Your task to perform on an android device: change text size in settings app Image 0: 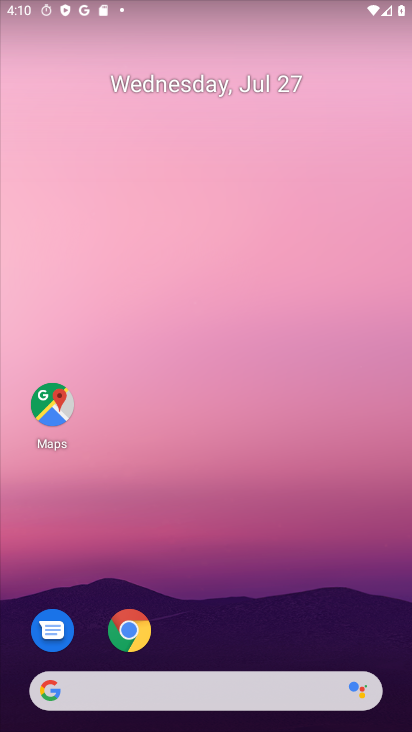
Step 0: drag from (225, 606) to (250, 7)
Your task to perform on an android device: change text size in settings app Image 1: 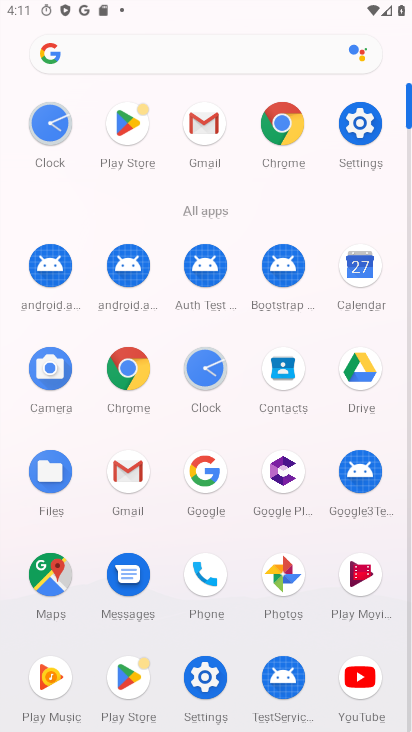
Step 1: click (367, 132)
Your task to perform on an android device: change text size in settings app Image 2: 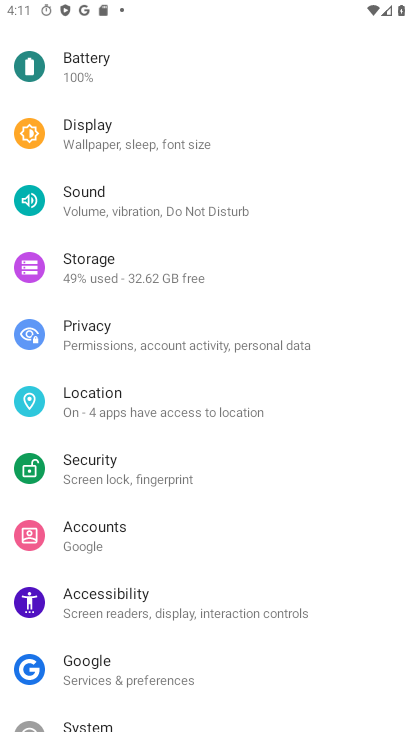
Step 2: drag from (97, 691) to (122, 496)
Your task to perform on an android device: change text size in settings app Image 3: 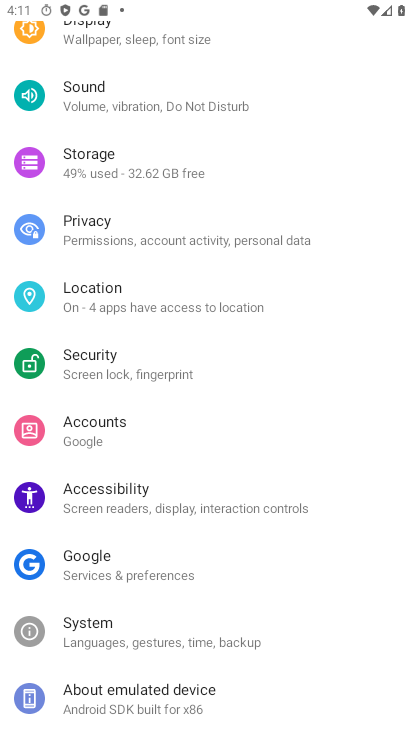
Step 3: click (82, 633)
Your task to perform on an android device: change text size in settings app Image 4: 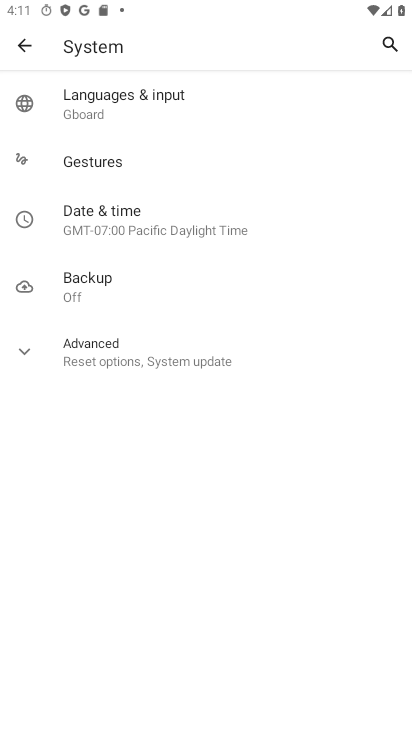
Step 4: click (135, 99)
Your task to perform on an android device: change text size in settings app Image 5: 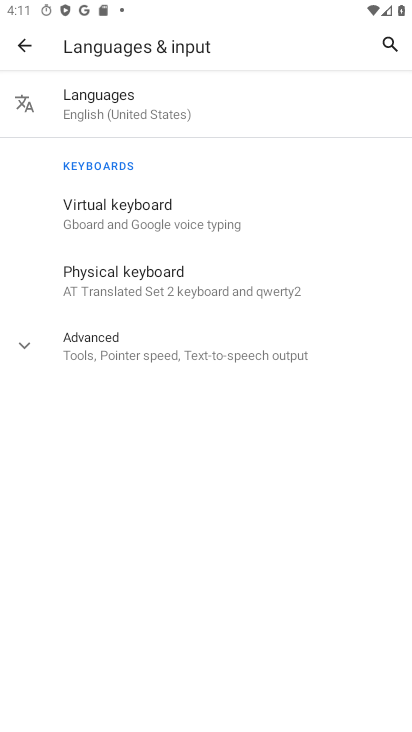
Step 5: click (31, 49)
Your task to perform on an android device: change text size in settings app Image 6: 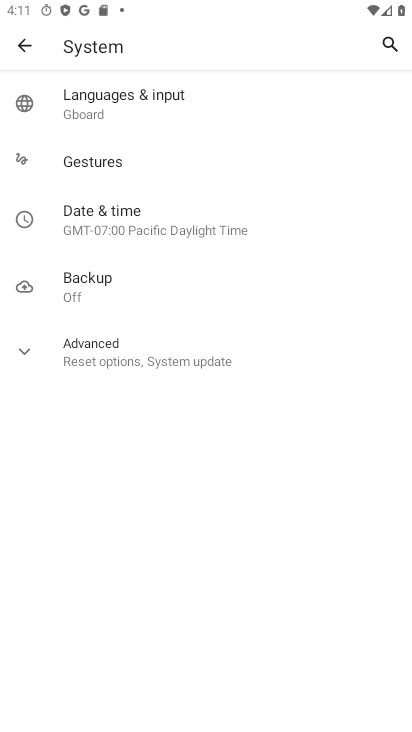
Step 6: click (32, 48)
Your task to perform on an android device: change text size in settings app Image 7: 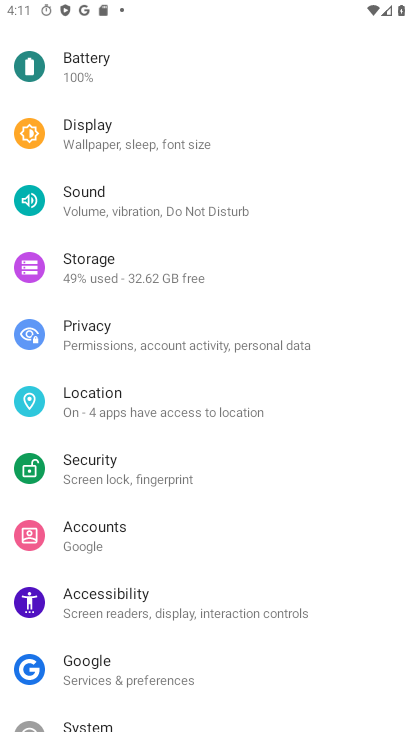
Step 7: click (150, 147)
Your task to perform on an android device: change text size in settings app Image 8: 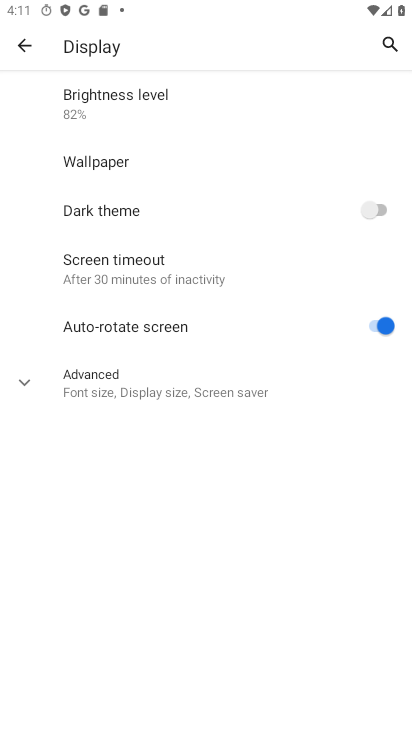
Step 8: click (153, 390)
Your task to perform on an android device: change text size in settings app Image 9: 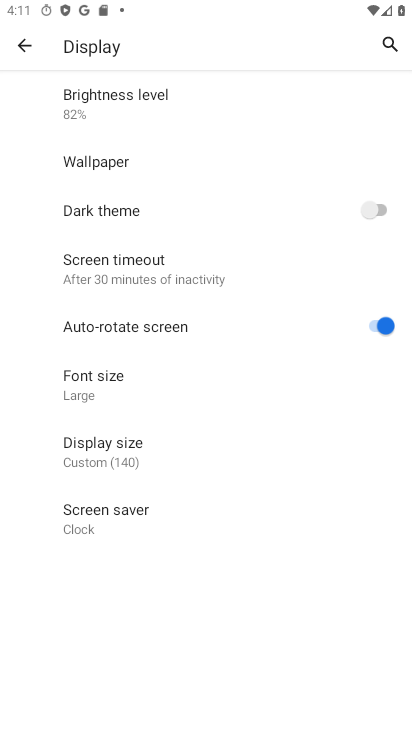
Step 9: click (97, 380)
Your task to perform on an android device: change text size in settings app Image 10: 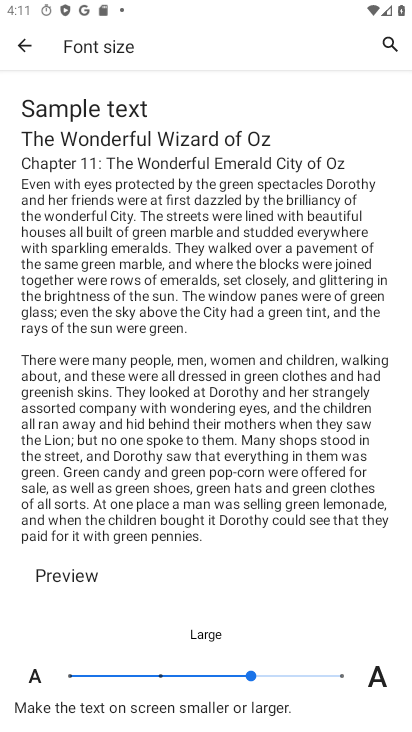
Step 10: click (345, 680)
Your task to perform on an android device: change text size in settings app Image 11: 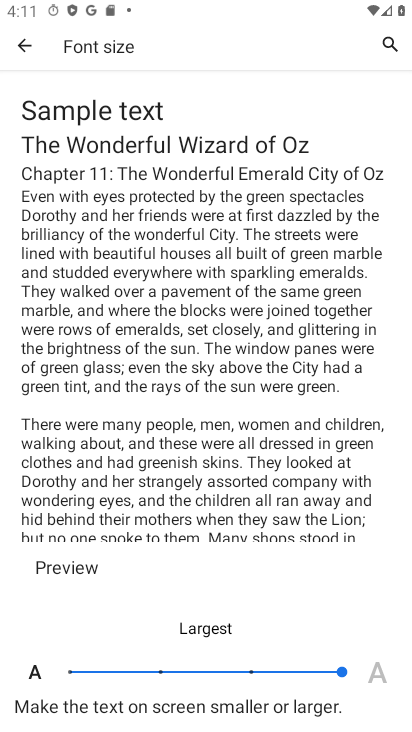
Step 11: task complete